Your task to perform on an android device: What is the speed of a cheetah? Image 0: 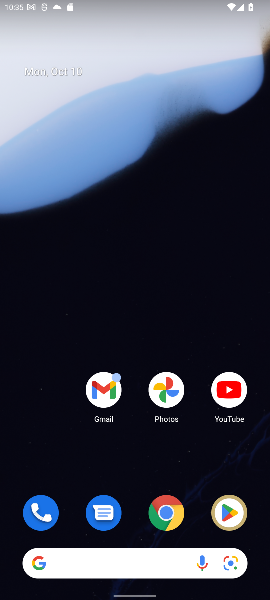
Step 0: drag from (128, 518) to (127, 8)
Your task to perform on an android device: What is the speed of a cheetah? Image 1: 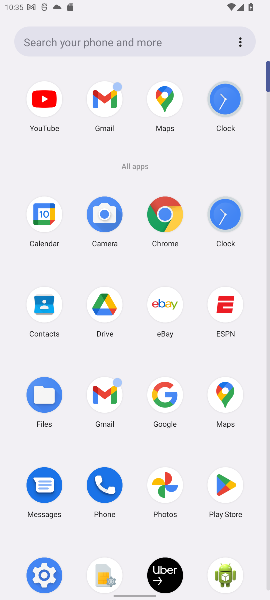
Step 1: click (162, 388)
Your task to perform on an android device: What is the speed of a cheetah? Image 2: 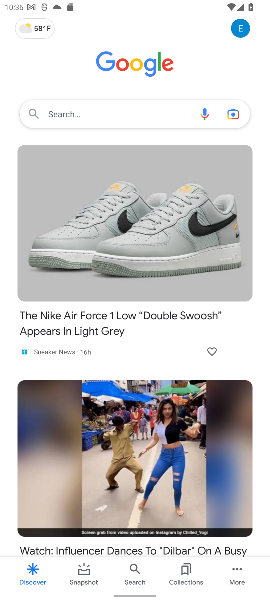
Step 2: click (76, 112)
Your task to perform on an android device: What is the speed of a cheetah? Image 3: 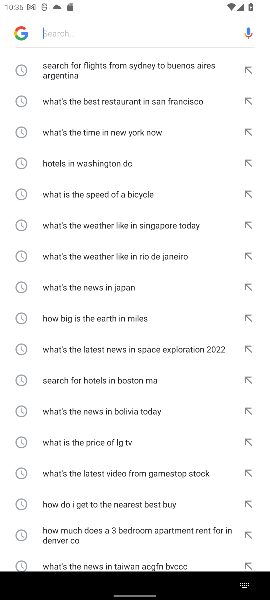
Step 3: type "What is the speed of a cheetah?"
Your task to perform on an android device: What is the speed of a cheetah? Image 4: 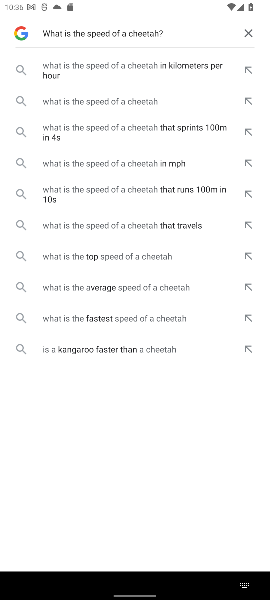
Step 4: click (121, 98)
Your task to perform on an android device: What is the speed of a cheetah? Image 5: 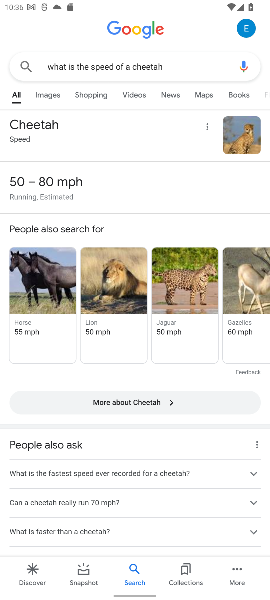
Step 5: task complete